Your task to perform on an android device: Is it going to rain tomorrow? Image 0: 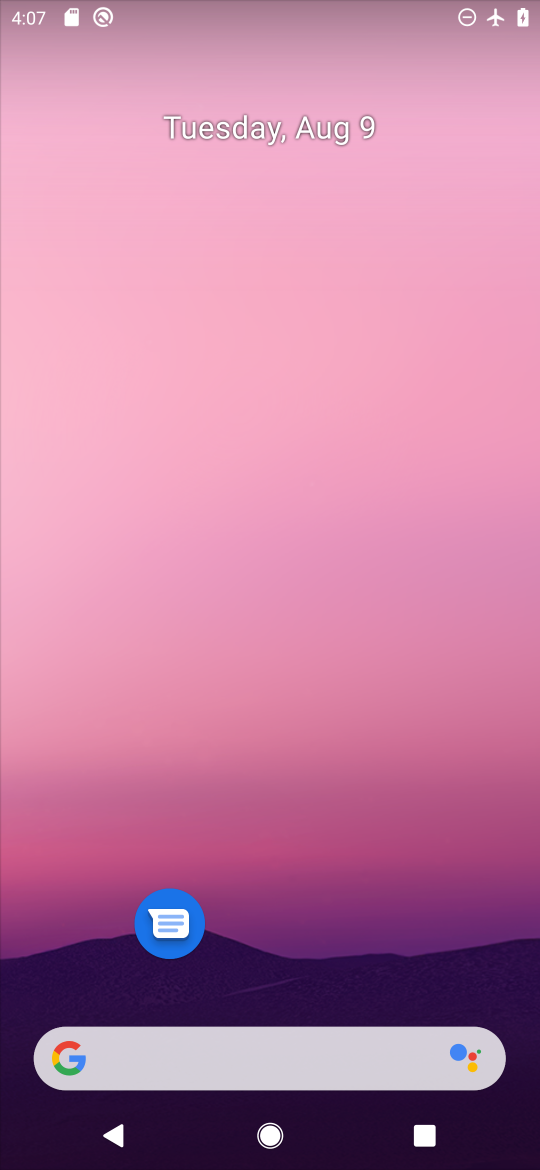
Step 0: drag from (326, 975) to (429, 56)
Your task to perform on an android device: Is it going to rain tomorrow? Image 1: 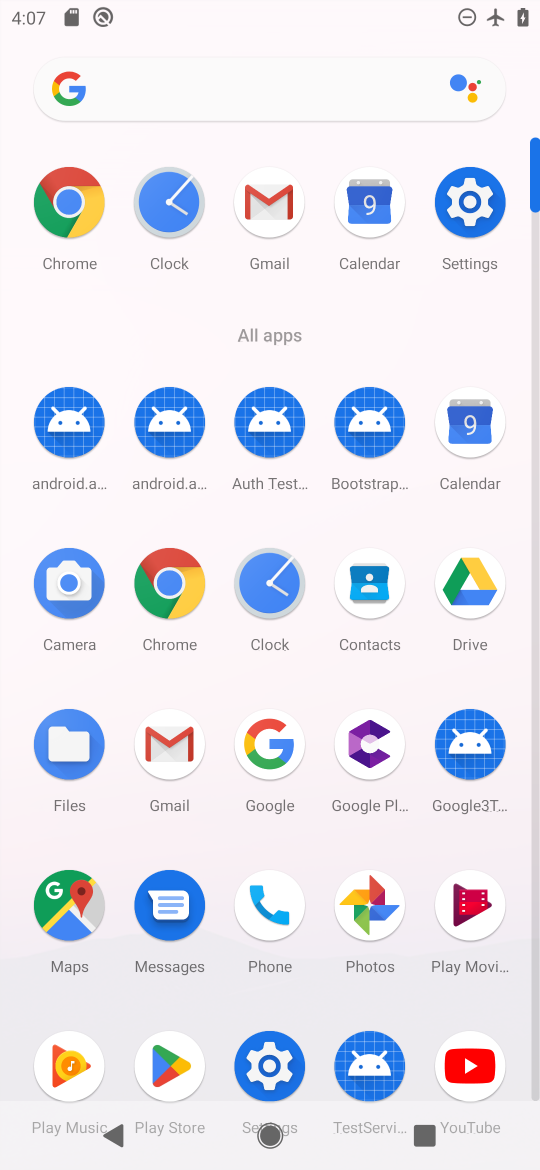
Step 1: click (267, 95)
Your task to perform on an android device: Is it going to rain tomorrow? Image 2: 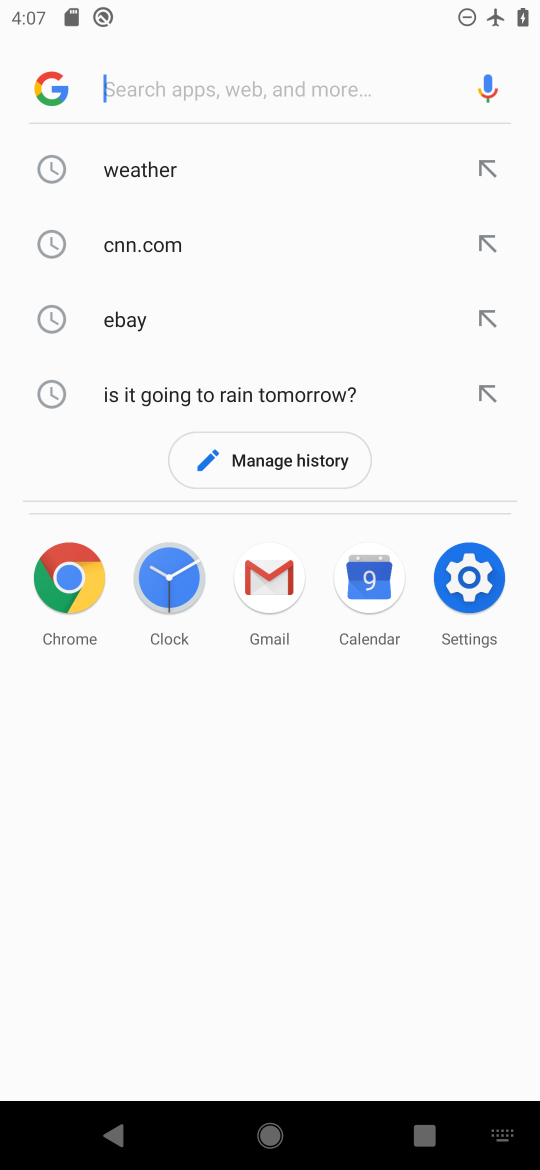
Step 2: click (196, 167)
Your task to perform on an android device: Is it going to rain tomorrow? Image 3: 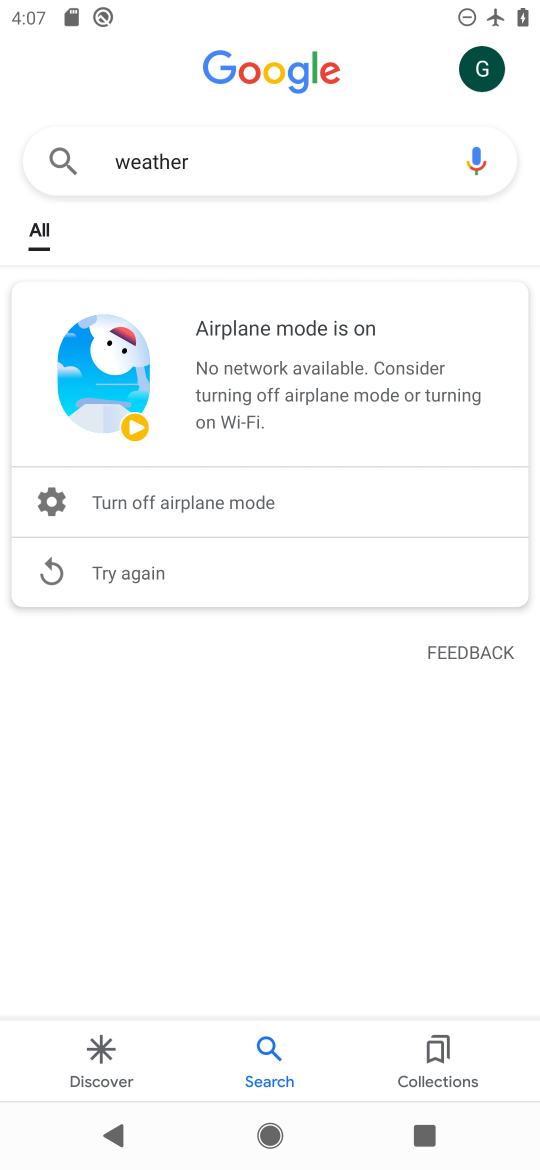
Step 3: drag from (482, 9) to (362, 722)
Your task to perform on an android device: Is it going to rain tomorrow? Image 4: 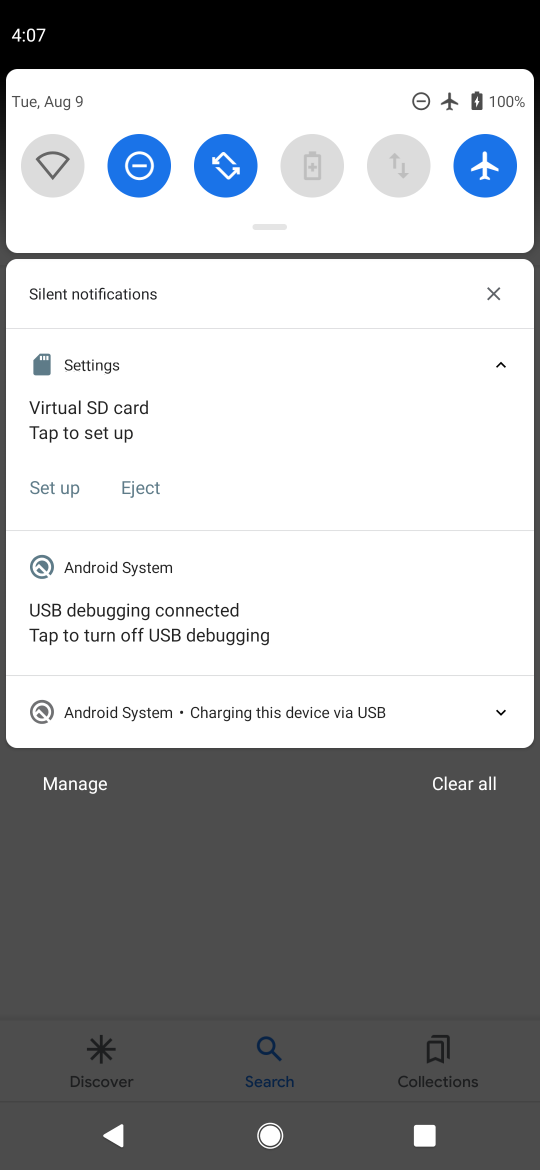
Step 4: drag from (483, 165) to (208, 854)
Your task to perform on an android device: Is it going to rain tomorrow? Image 5: 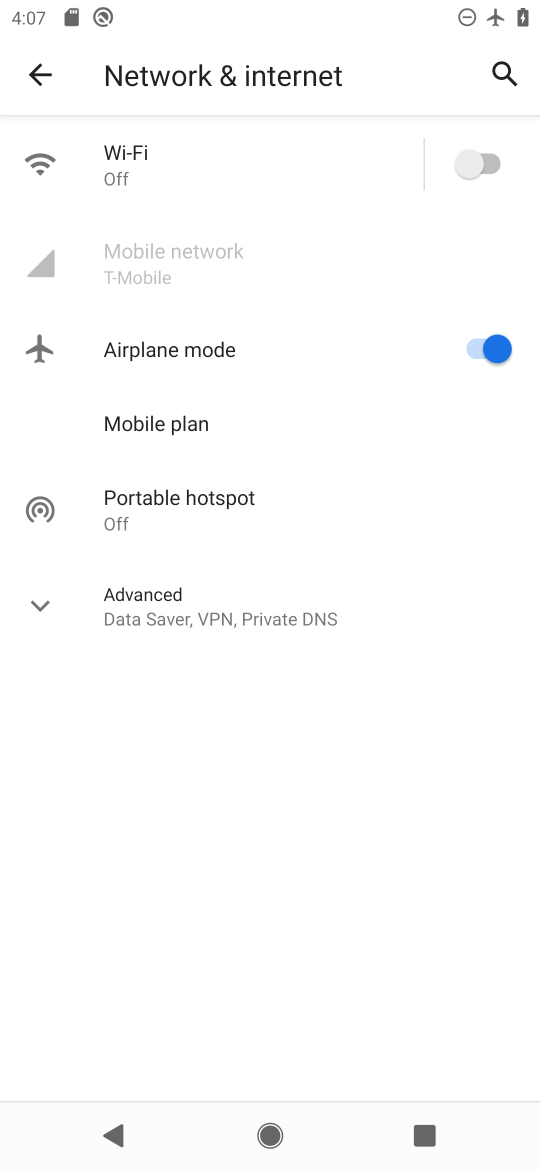
Step 5: click (498, 335)
Your task to perform on an android device: Is it going to rain tomorrow? Image 6: 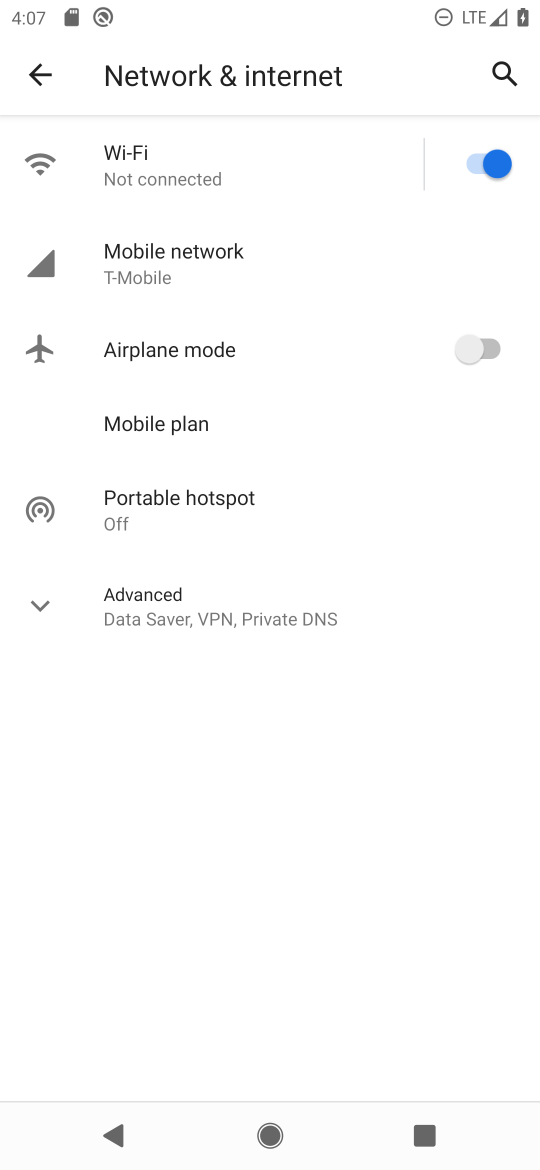
Step 6: click (41, 79)
Your task to perform on an android device: Is it going to rain tomorrow? Image 7: 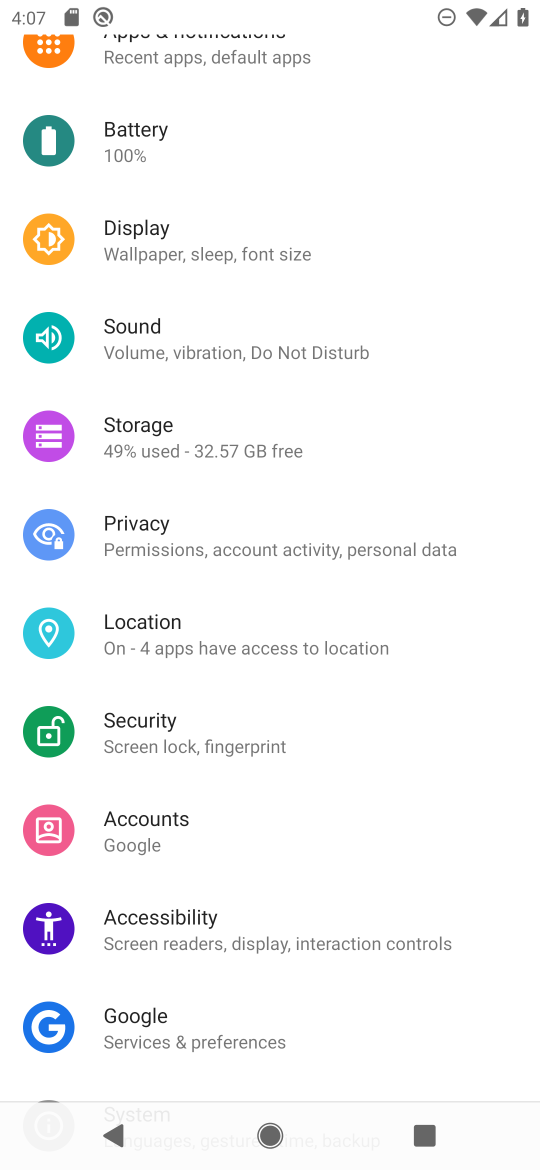
Step 7: drag from (276, 216) to (325, 1015)
Your task to perform on an android device: Is it going to rain tomorrow? Image 8: 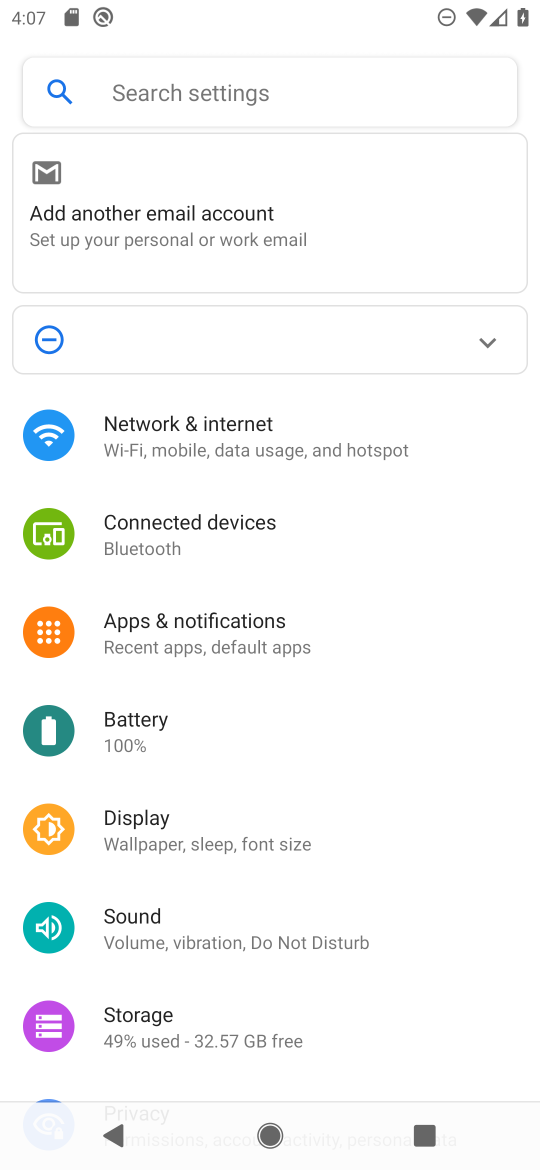
Step 8: click (191, 84)
Your task to perform on an android device: Is it going to rain tomorrow? Image 9: 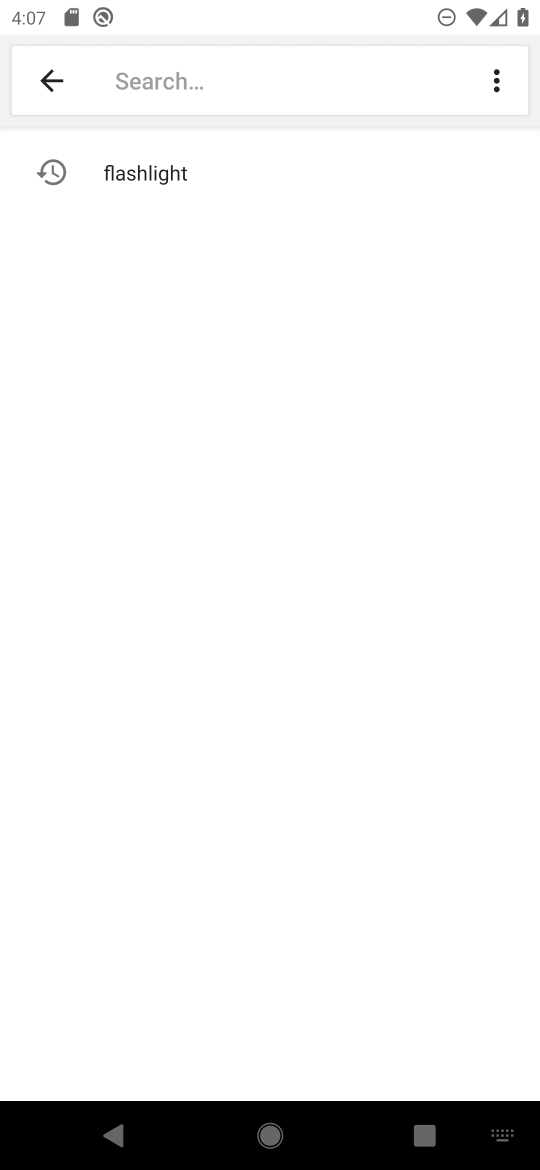
Step 9: click (190, 89)
Your task to perform on an android device: Is it going to rain tomorrow? Image 10: 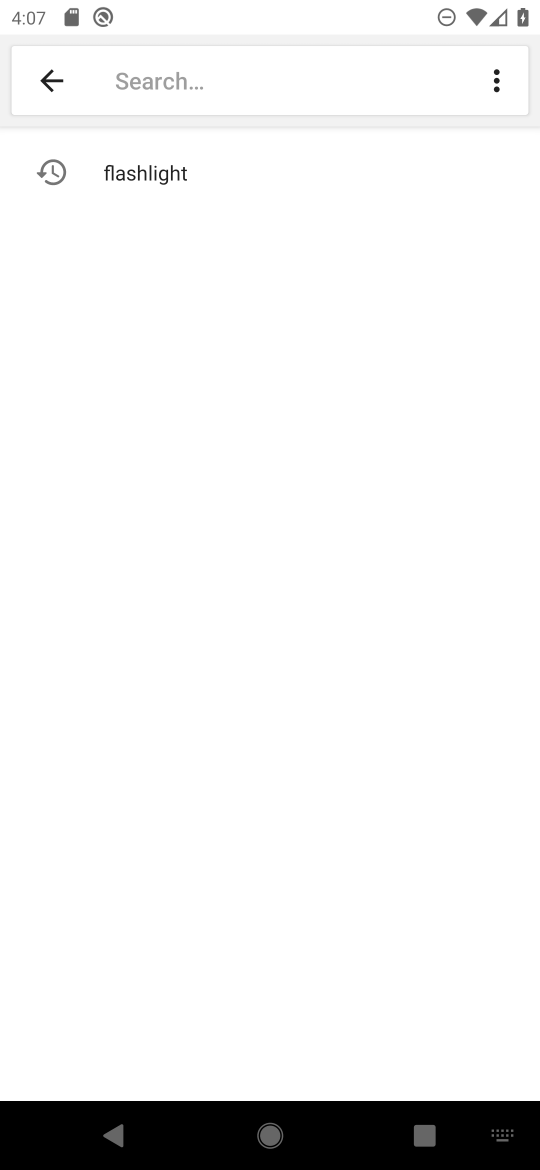
Step 10: type "weather"
Your task to perform on an android device: Is it going to rain tomorrow? Image 11: 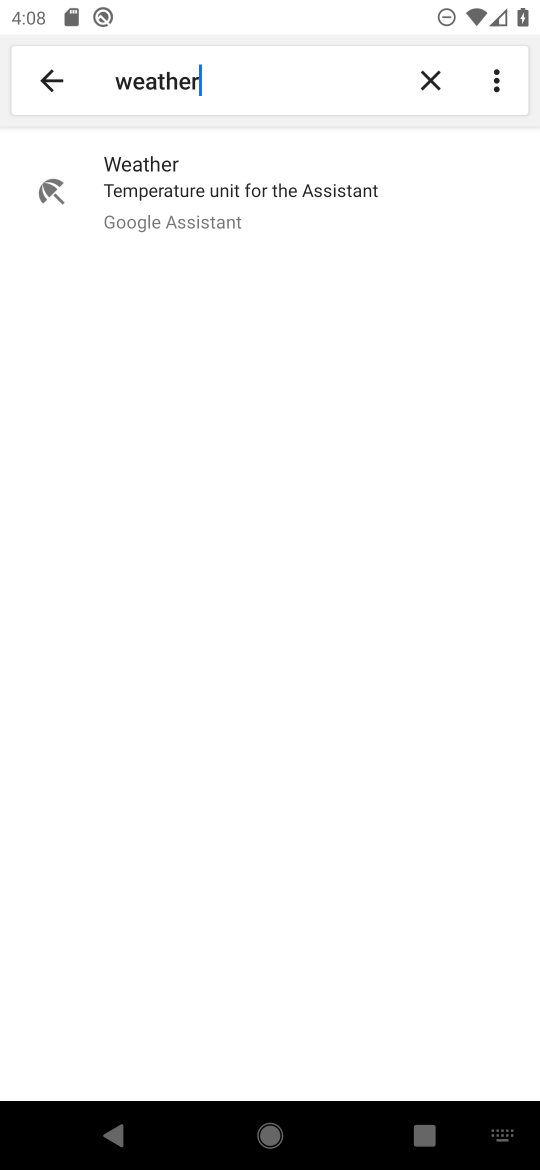
Step 11: press back button
Your task to perform on an android device: Is it going to rain tomorrow? Image 12: 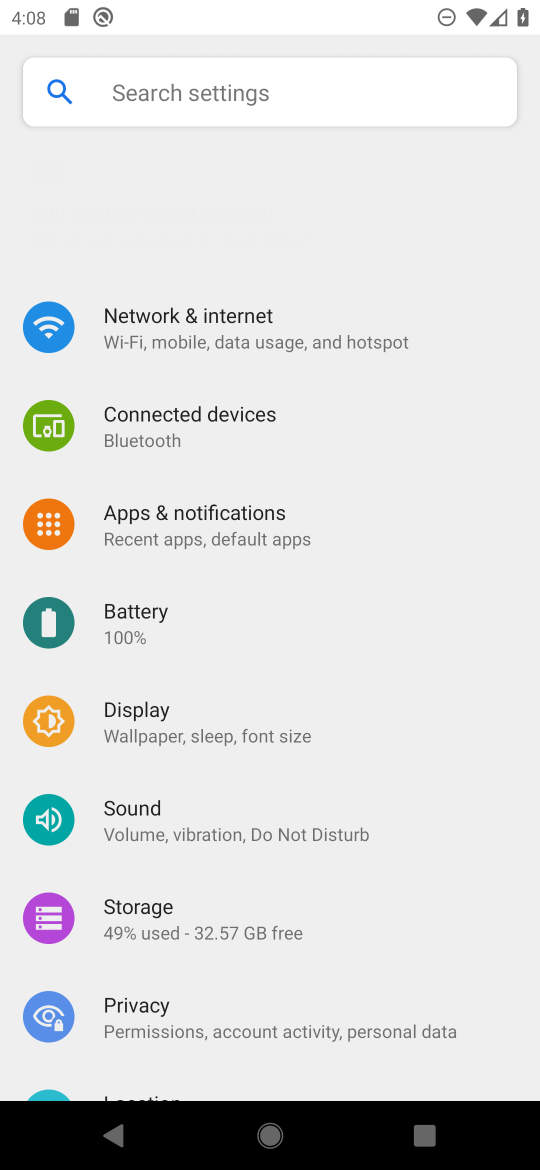
Step 12: press back button
Your task to perform on an android device: Is it going to rain tomorrow? Image 13: 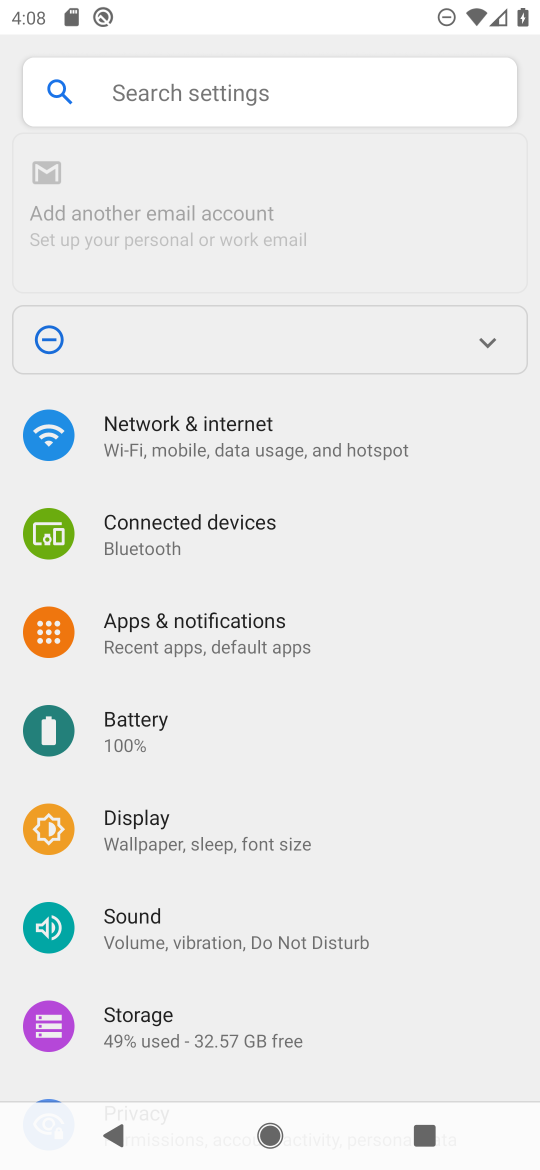
Step 13: press home button
Your task to perform on an android device: Is it going to rain tomorrow? Image 14: 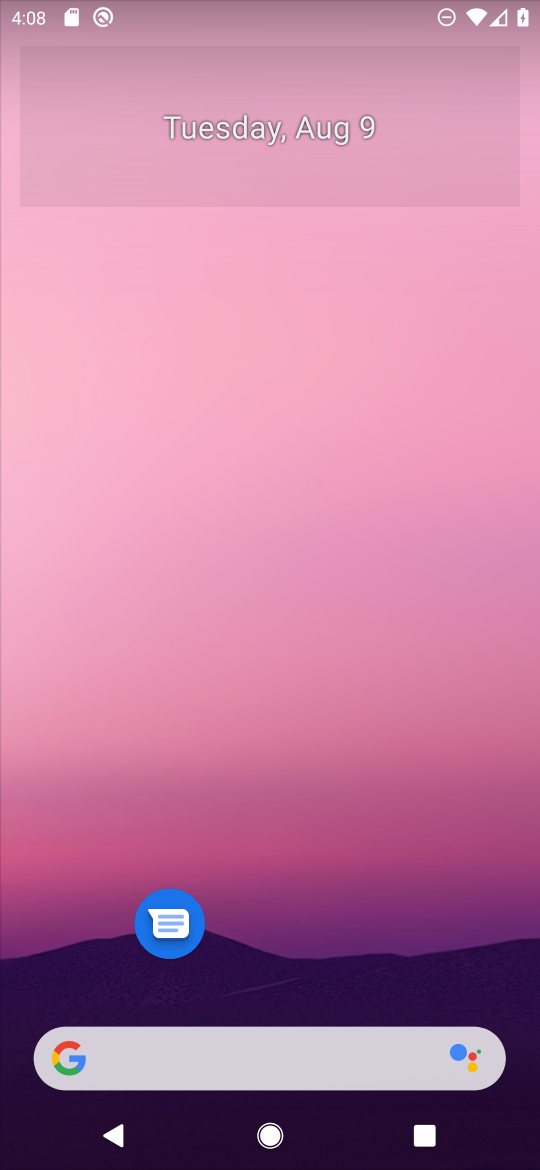
Step 14: click (278, 1055)
Your task to perform on an android device: Is it going to rain tomorrow? Image 15: 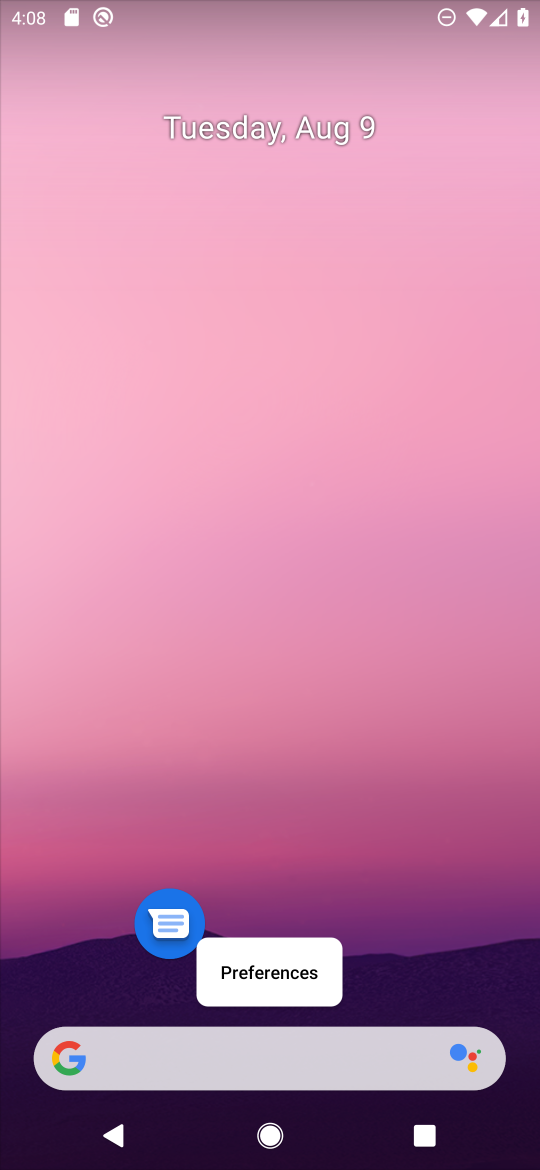
Step 15: click (196, 1071)
Your task to perform on an android device: Is it going to rain tomorrow? Image 16: 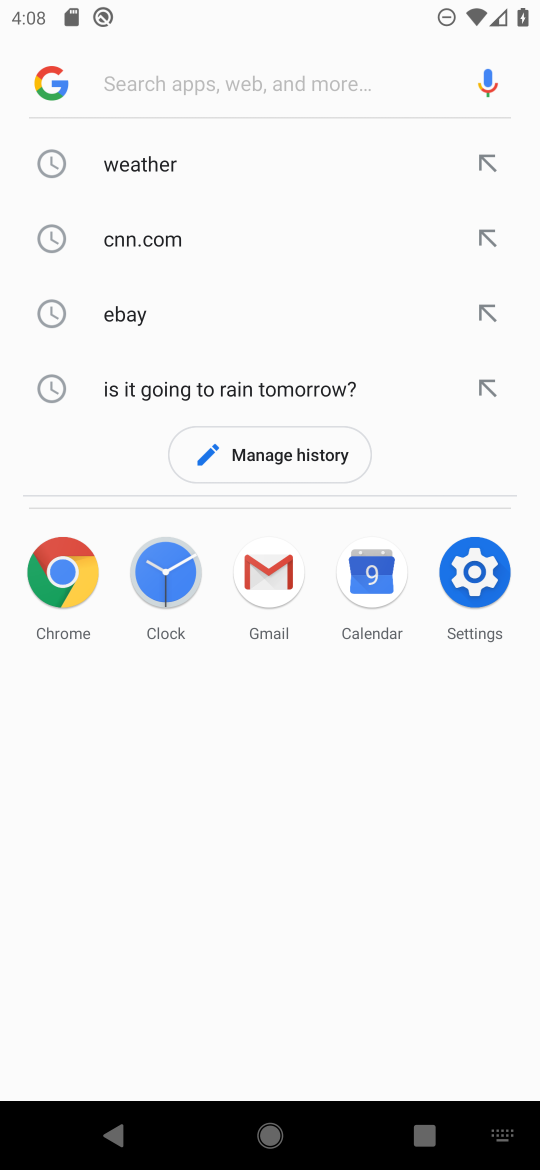
Step 16: click (167, 163)
Your task to perform on an android device: Is it going to rain tomorrow? Image 17: 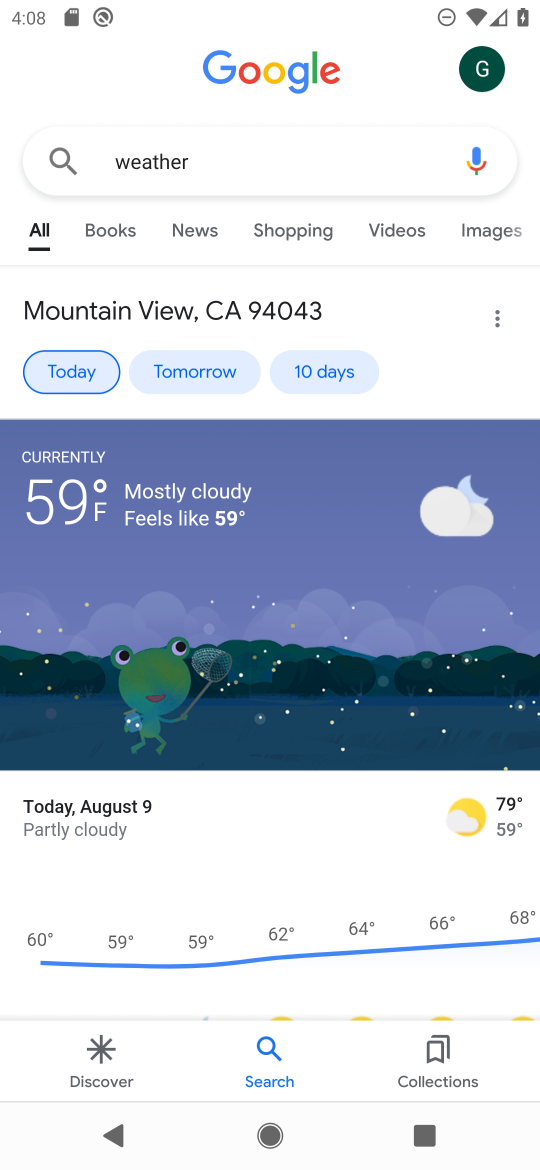
Step 17: click (197, 361)
Your task to perform on an android device: Is it going to rain tomorrow? Image 18: 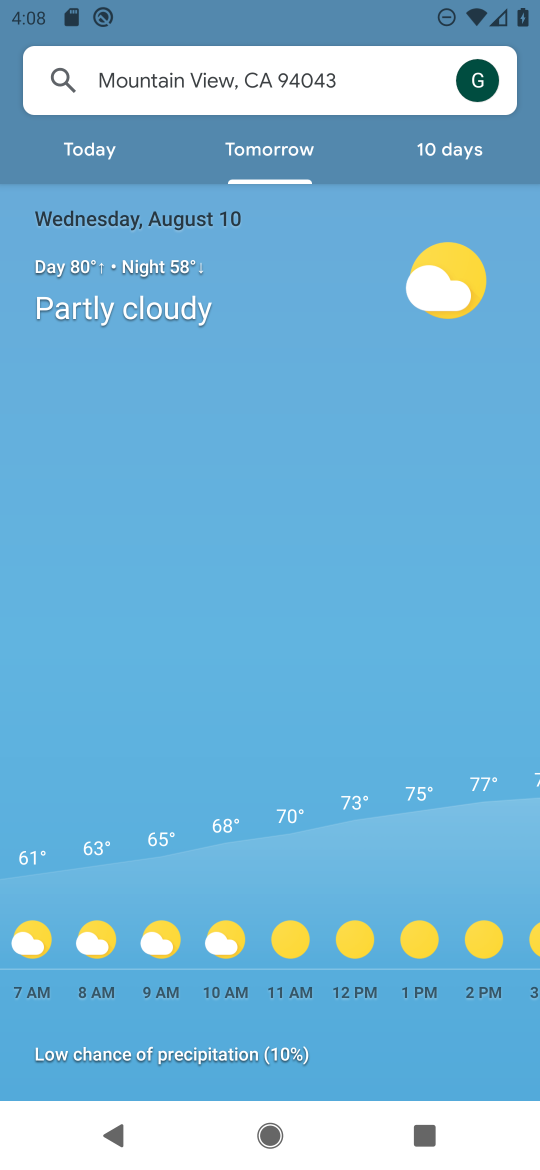
Step 18: task complete